Your task to perform on an android device: change notification settings in the gmail app Image 0: 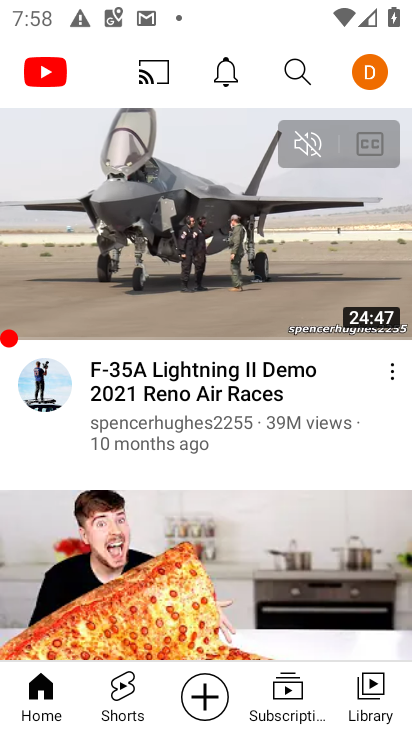
Step 0: press home button
Your task to perform on an android device: change notification settings in the gmail app Image 1: 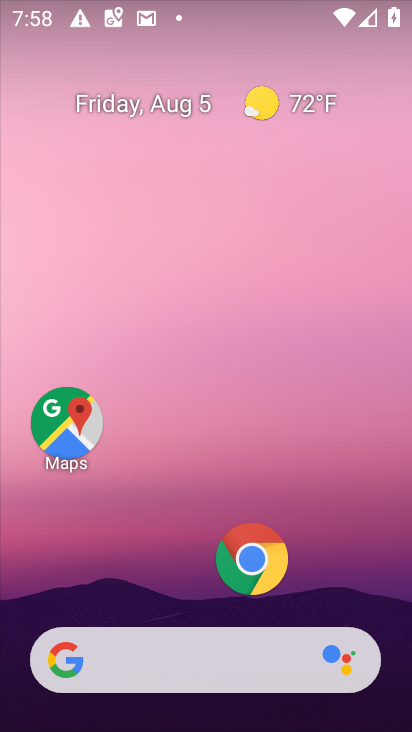
Step 1: drag from (177, 583) to (191, 98)
Your task to perform on an android device: change notification settings in the gmail app Image 2: 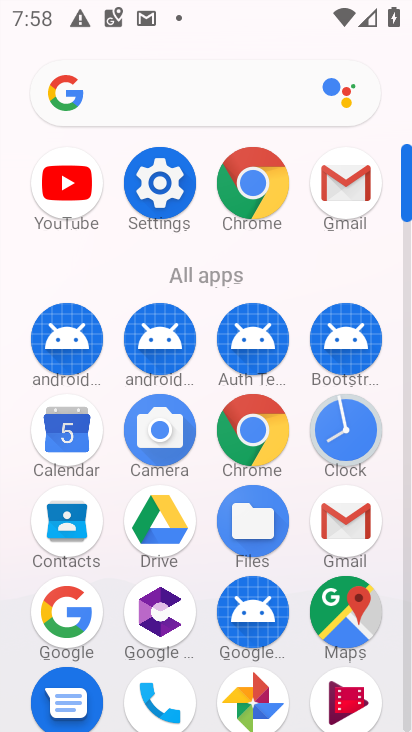
Step 2: click (348, 522)
Your task to perform on an android device: change notification settings in the gmail app Image 3: 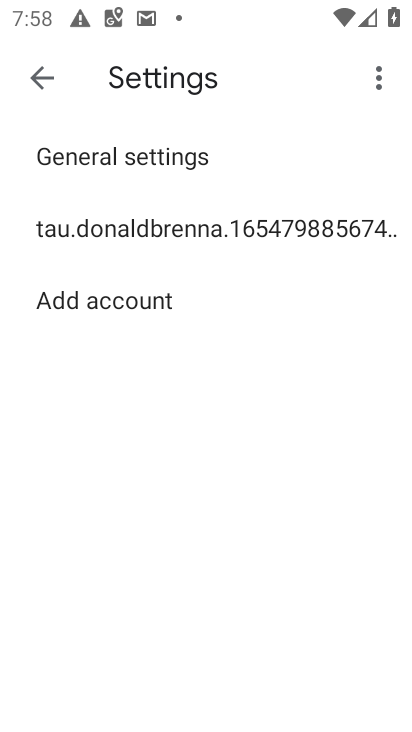
Step 3: click (95, 150)
Your task to perform on an android device: change notification settings in the gmail app Image 4: 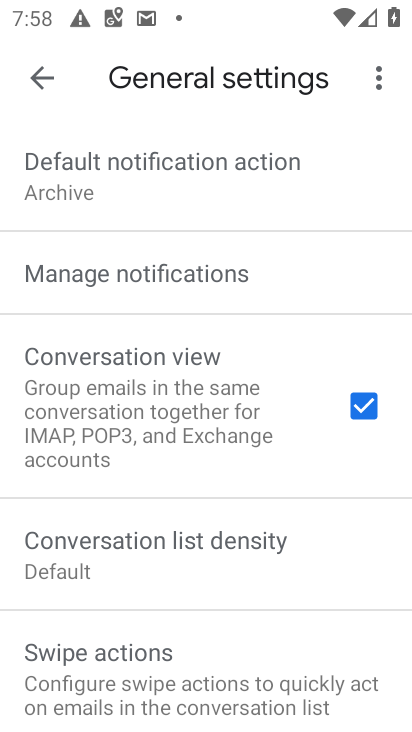
Step 4: click (127, 284)
Your task to perform on an android device: change notification settings in the gmail app Image 5: 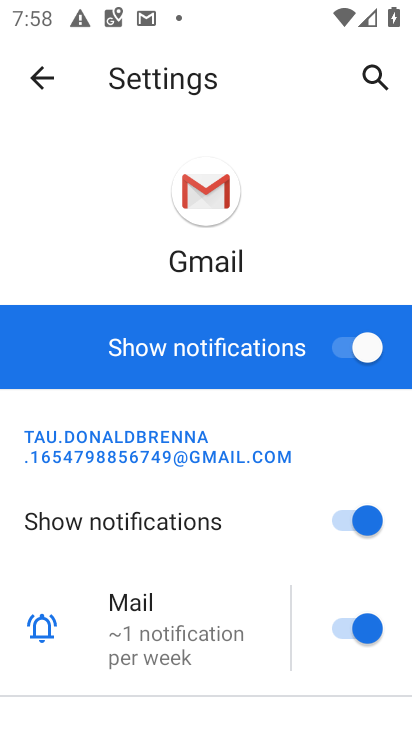
Step 5: click (327, 353)
Your task to perform on an android device: change notification settings in the gmail app Image 6: 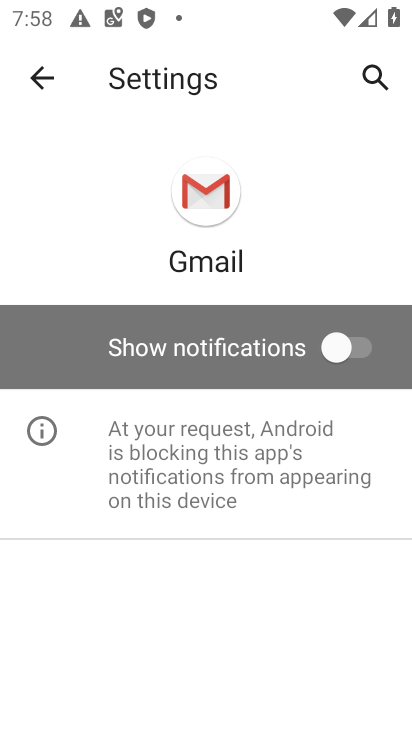
Step 6: task complete